Your task to perform on an android device: see creations saved in the google photos Image 0: 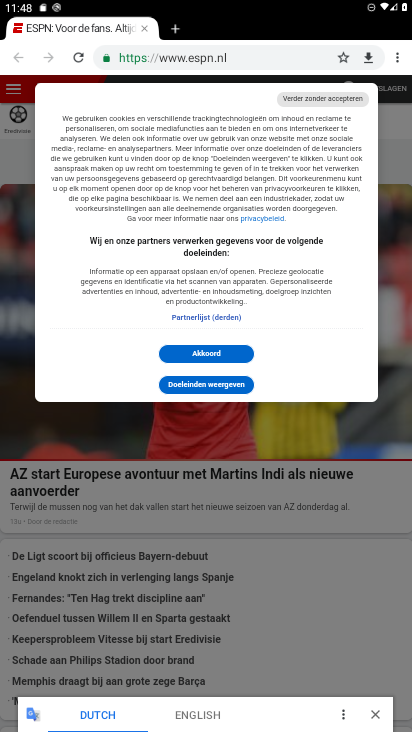
Step 0: press home button
Your task to perform on an android device: see creations saved in the google photos Image 1: 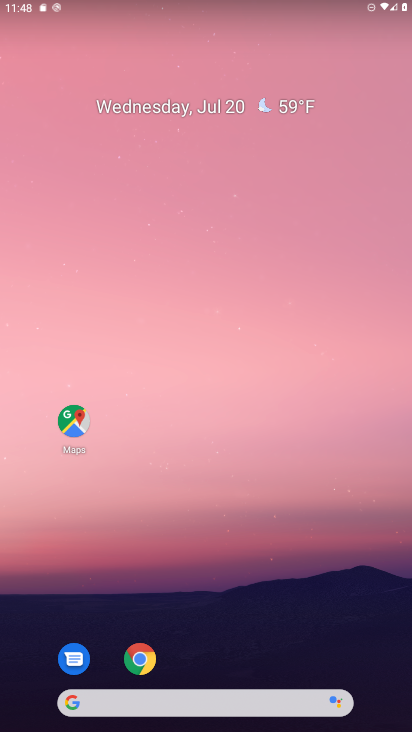
Step 1: drag from (34, 494) to (213, 30)
Your task to perform on an android device: see creations saved in the google photos Image 2: 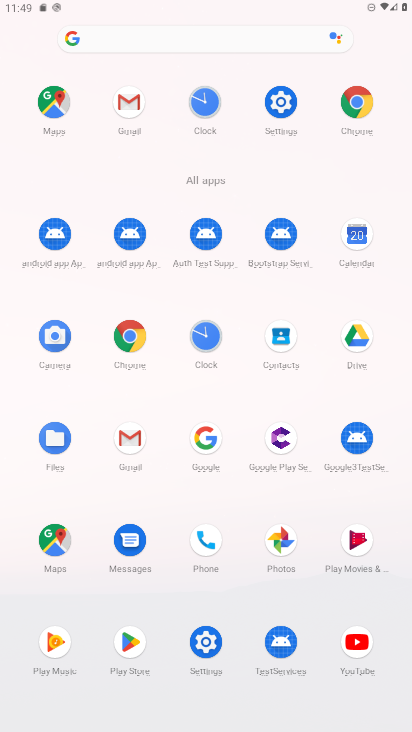
Step 2: click (276, 546)
Your task to perform on an android device: see creations saved in the google photos Image 3: 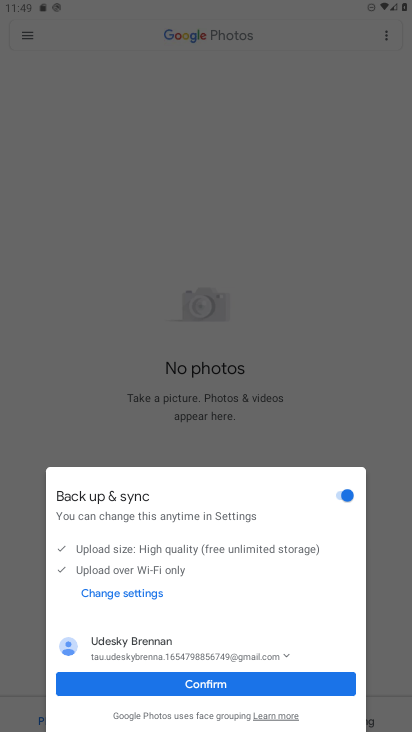
Step 3: click (235, 679)
Your task to perform on an android device: see creations saved in the google photos Image 4: 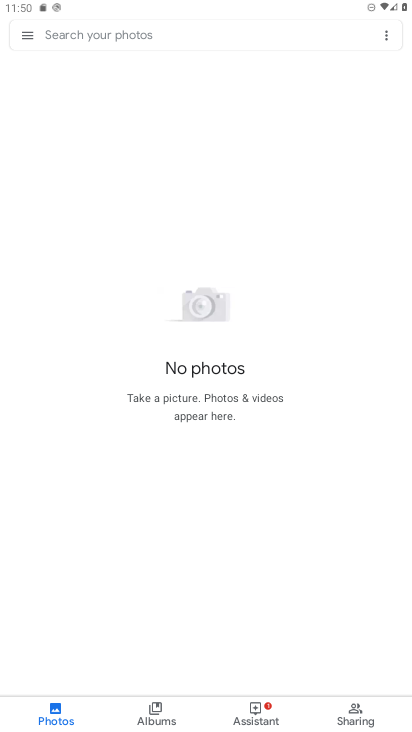
Step 4: click (230, 23)
Your task to perform on an android device: see creations saved in the google photos Image 5: 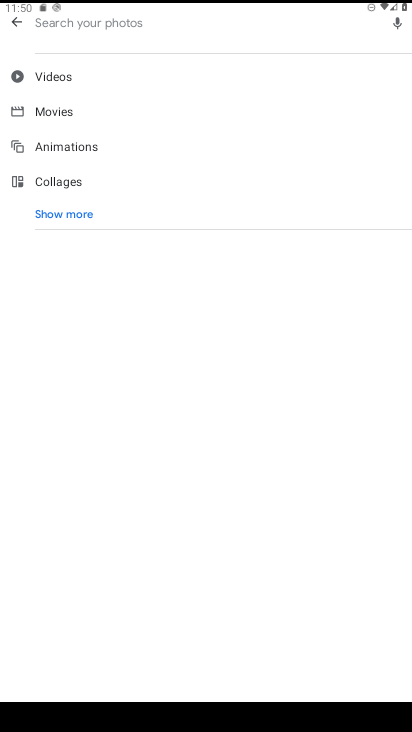
Step 5: click (72, 210)
Your task to perform on an android device: see creations saved in the google photos Image 6: 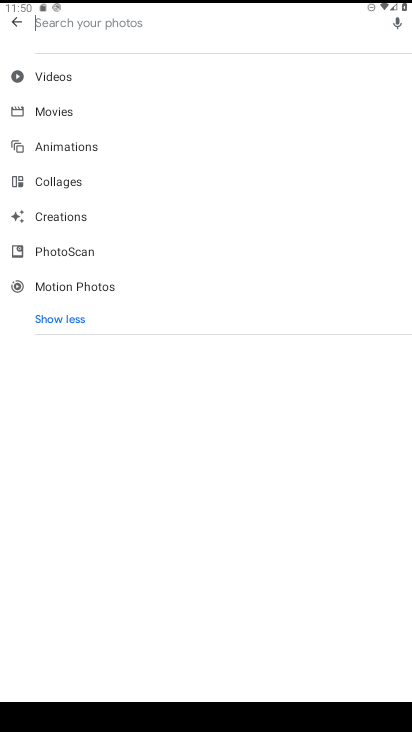
Step 6: click (82, 217)
Your task to perform on an android device: see creations saved in the google photos Image 7: 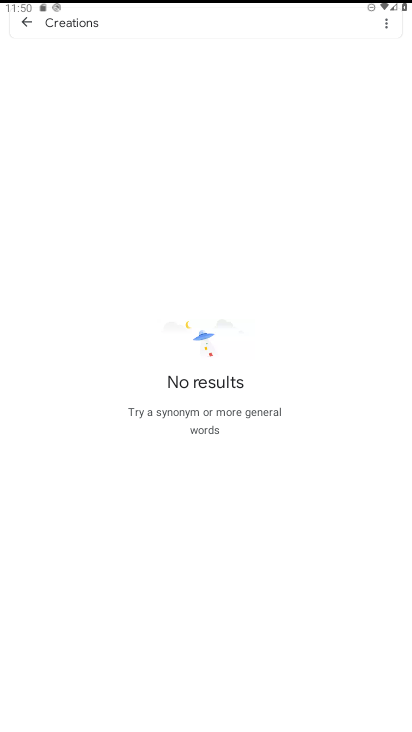
Step 7: task complete